Your task to perform on an android device: Set the phone to "Do not disturb". Image 0: 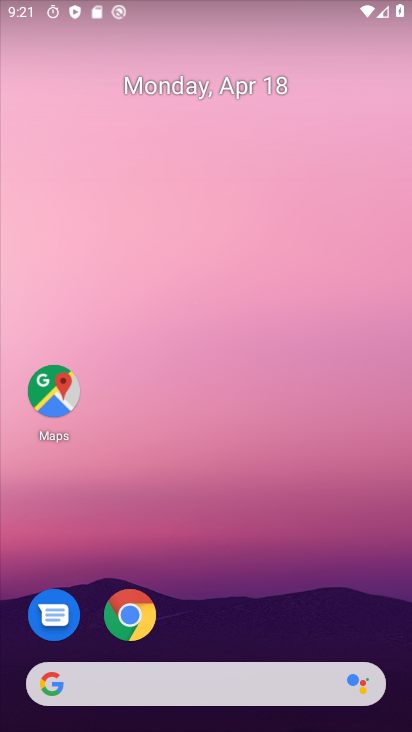
Step 0: drag from (222, 489) to (253, 304)
Your task to perform on an android device: Set the phone to "Do not disturb". Image 1: 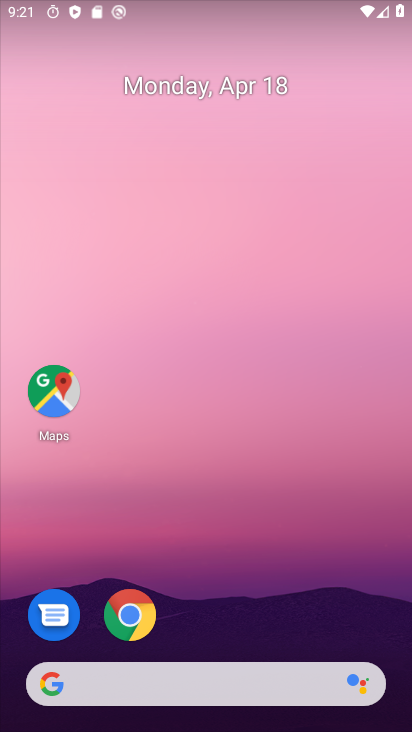
Step 1: drag from (185, 524) to (197, 295)
Your task to perform on an android device: Set the phone to "Do not disturb". Image 2: 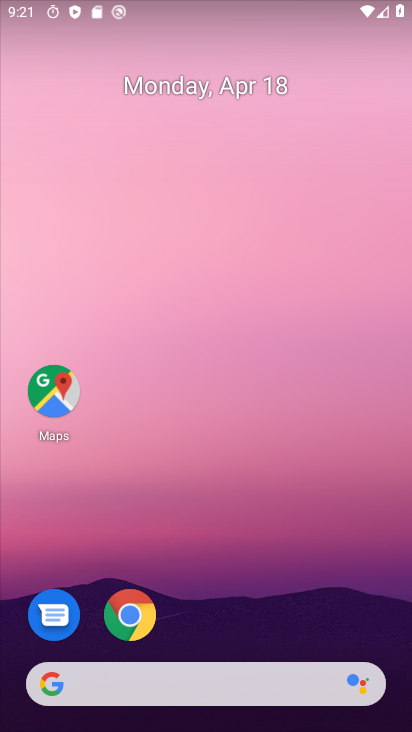
Step 2: drag from (185, 663) to (210, 237)
Your task to perform on an android device: Set the phone to "Do not disturb". Image 3: 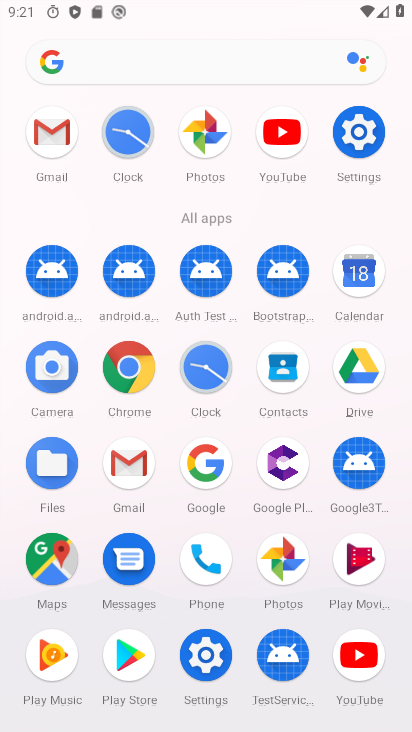
Step 3: click (359, 139)
Your task to perform on an android device: Set the phone to "Do not disturb". Image 4: 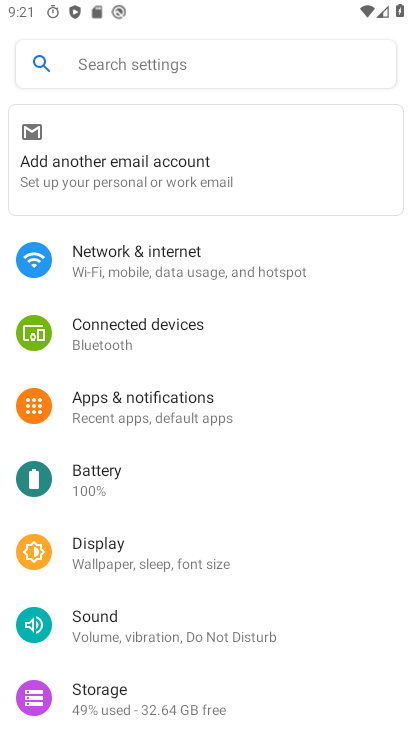
Step 4: click (162, 633)
Your task to perform on an android device: Set the phone to "Do not disturb". Image 5: 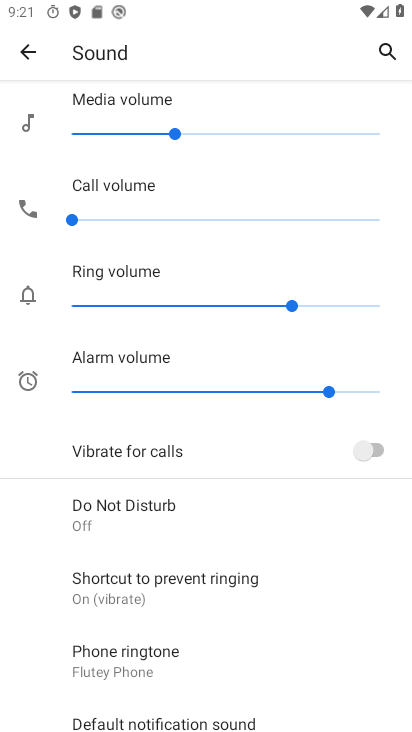
Step 5: click (131, 515)
Your task to perform on an android device: Set the phone to "Do not disturb". Image 6: 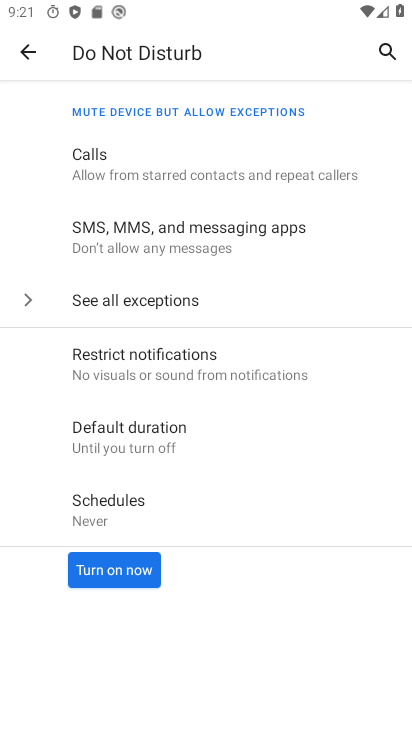
Step 6: click (122, 571)
Your task to perform on an android device: Set the phone to "Do not disturb". Image 7: 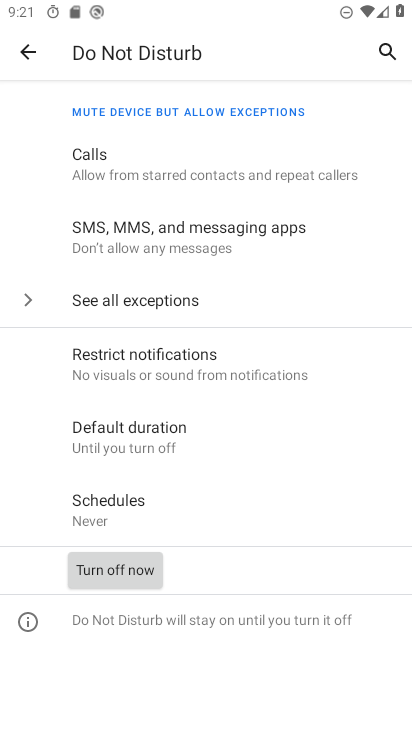
Step 7: task complete